Your task to perform on an android device: check battery use Image 0: 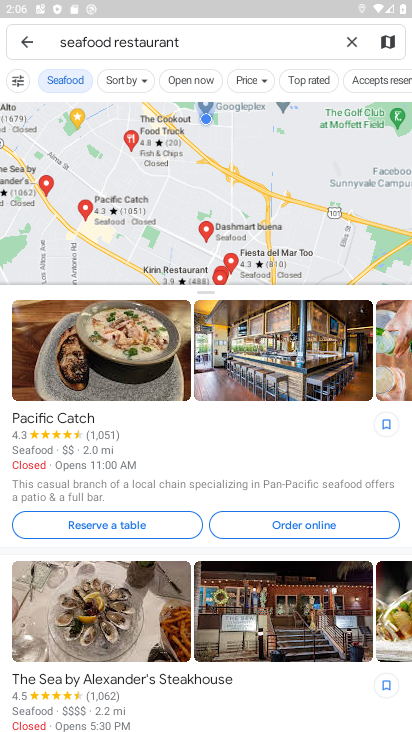
Step 0: press home button
Your task to perform on an android device: check battery use Image 1: 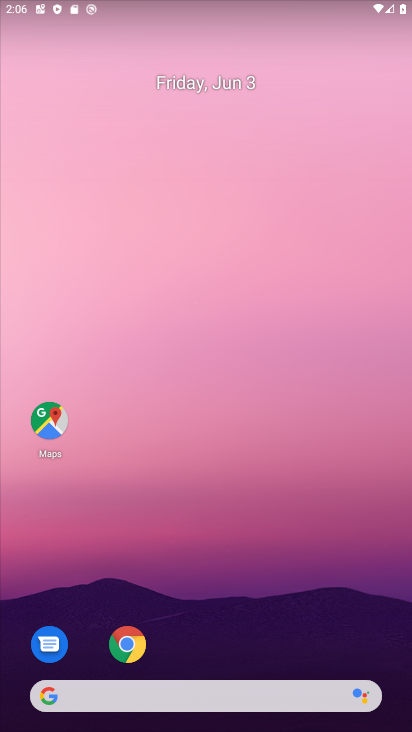
Step 1: drag from (209, 650) to (184, 176)
Your task to perform on an android device: check battery use Image 2: 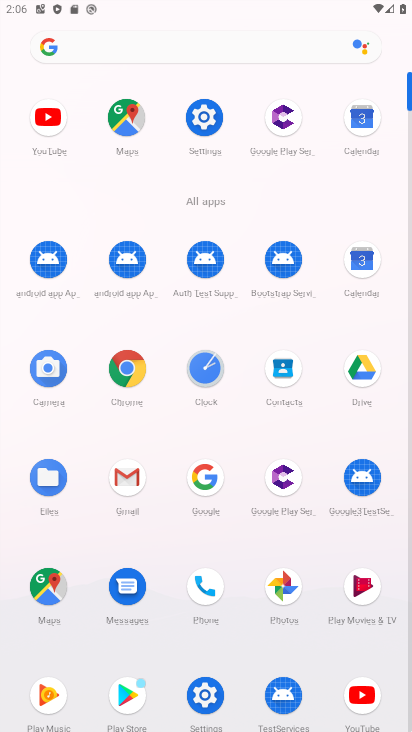
Step 2: click (196, 150)
Your task to perform on an android device: check battery use Image 3: 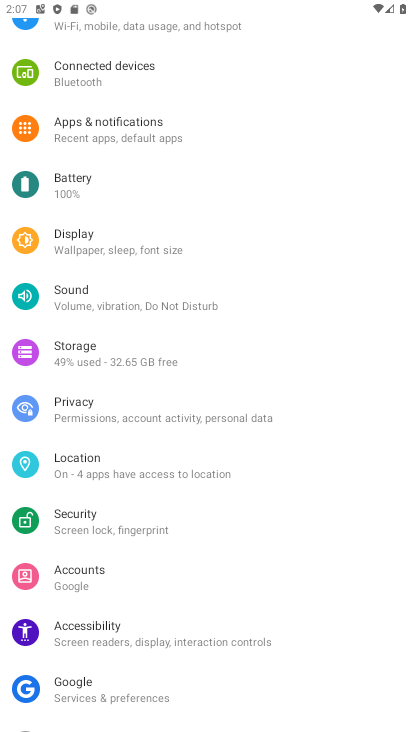
Step 3: click (130, 195)
Your task to perform on an android device: check battery use Image 4: 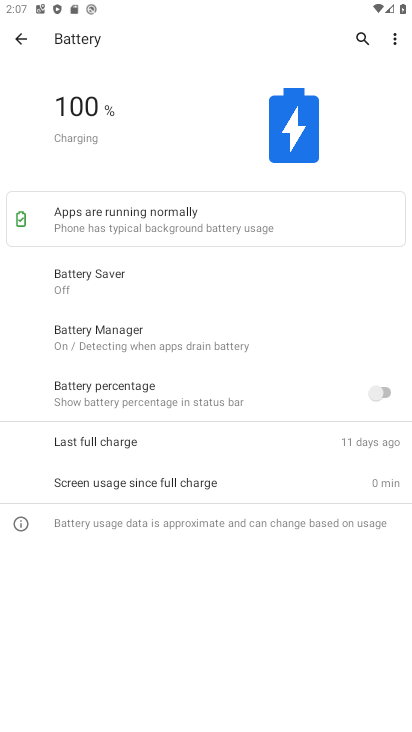
Step 4: click (398, 43)
Your task to perform on an android device: check battery use Image 5: 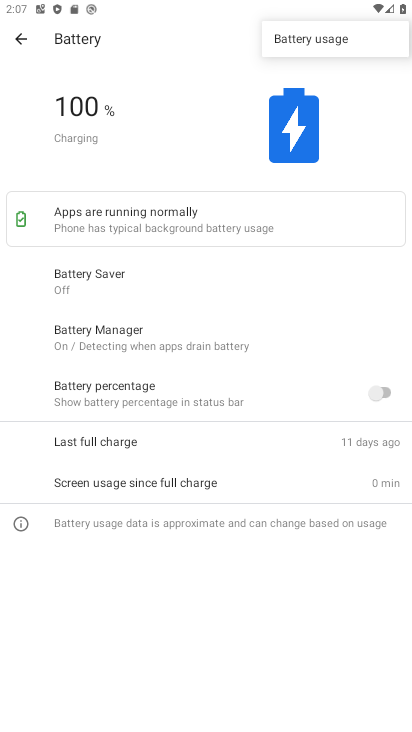
Step 5: click (327, 40)
Your task to perform on an android device: check battery use Image 6: 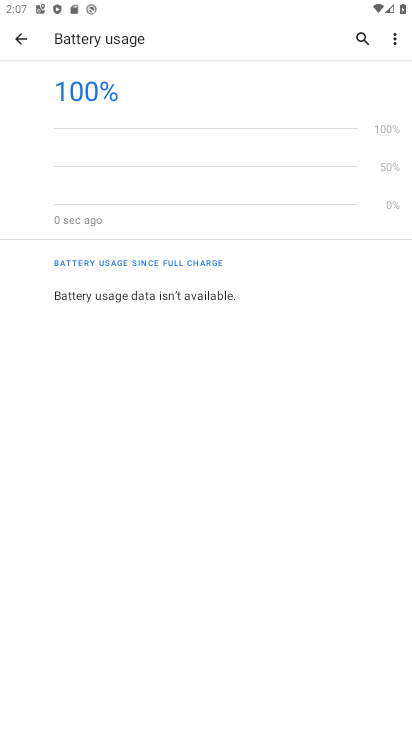
Step 6: task complete